Your task to perform on an android device: Go to ESPN.com Image 0: 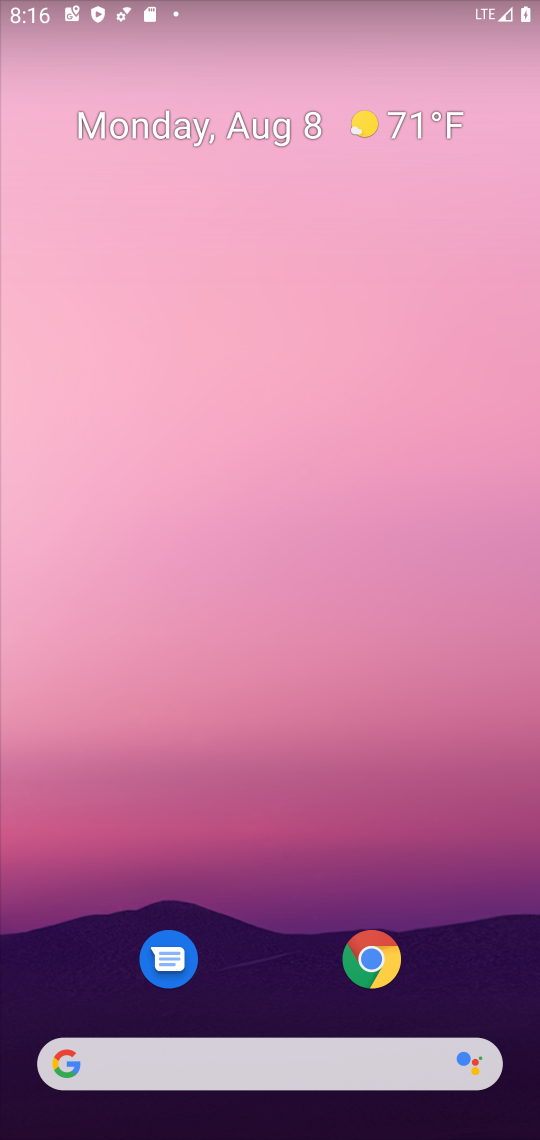
Step 0: drag from (477, 956) to (225, 70)
Your task to perform on an android device: Go to ESPN.com Image 1: 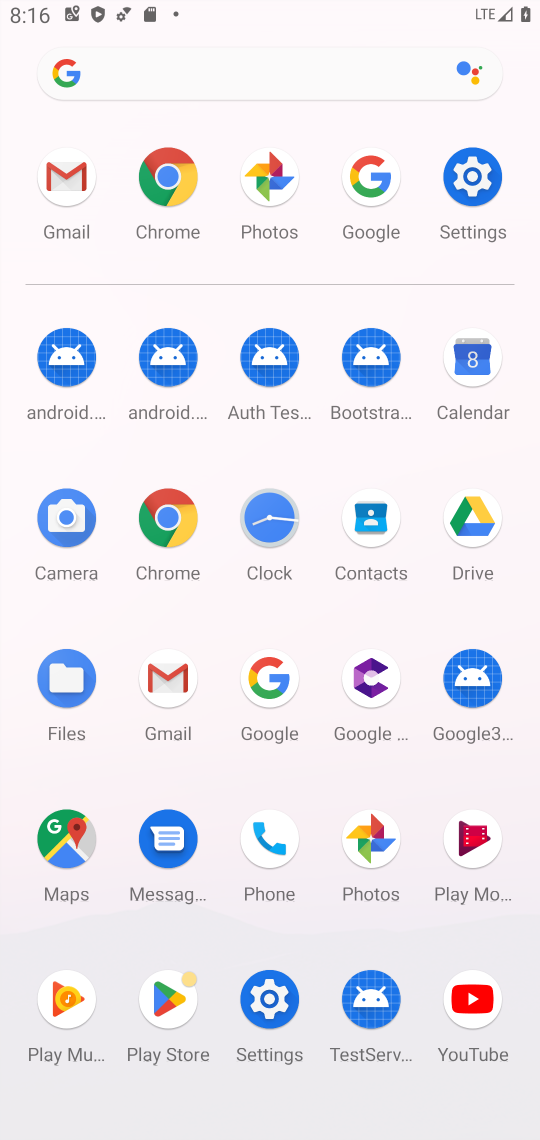
Step 1: click (273, 693)
Your task to perform on an android device: Go to ESPN.com Image 2: 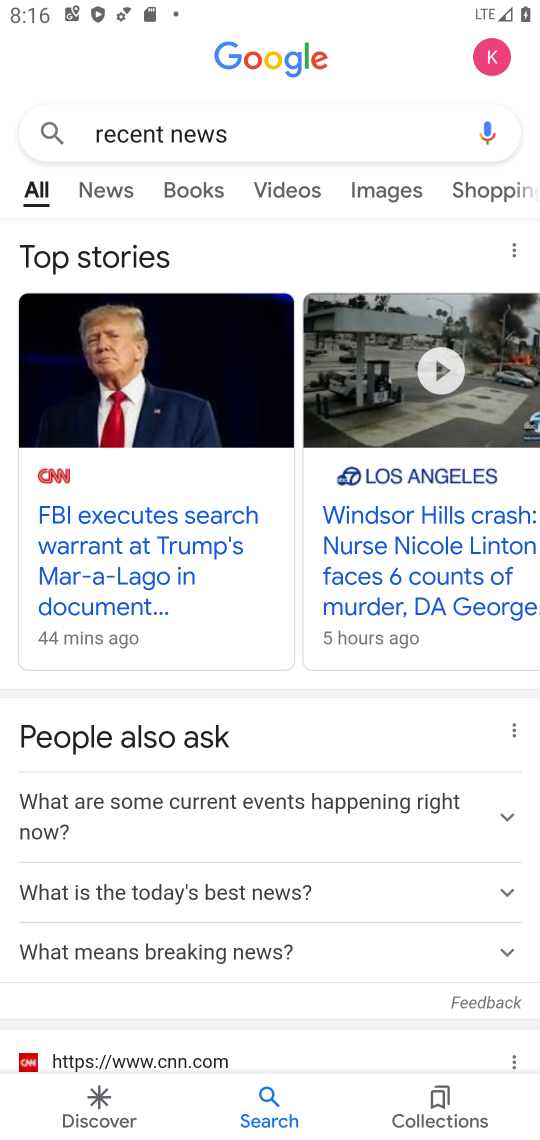
Step 2: press back button
Your task to perform on an android device: Go to ESPN.com Image 3: 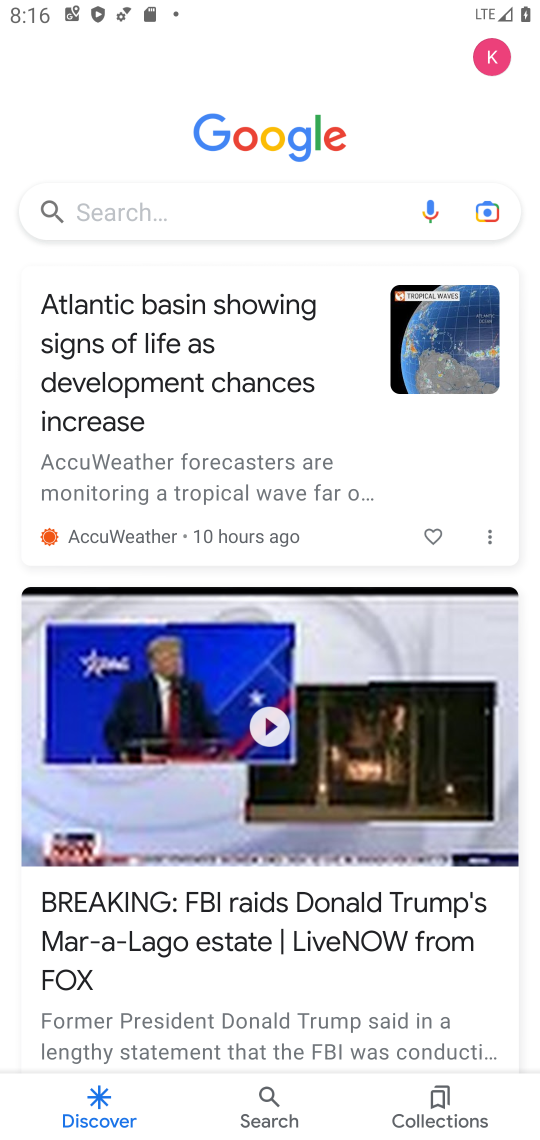
Step 3: click (138, 215)
Your task to perform on an android device: Go to ESPN.com Image 4: 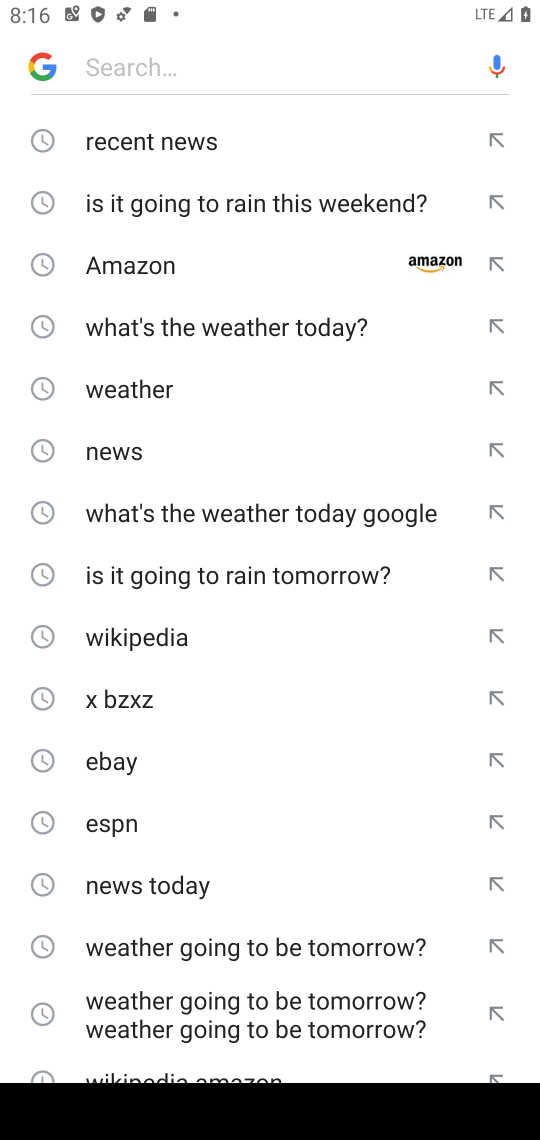
Step 4: type "ESPN.com"
Your task to perform on an android device: Go to ESPN.com Image 5: 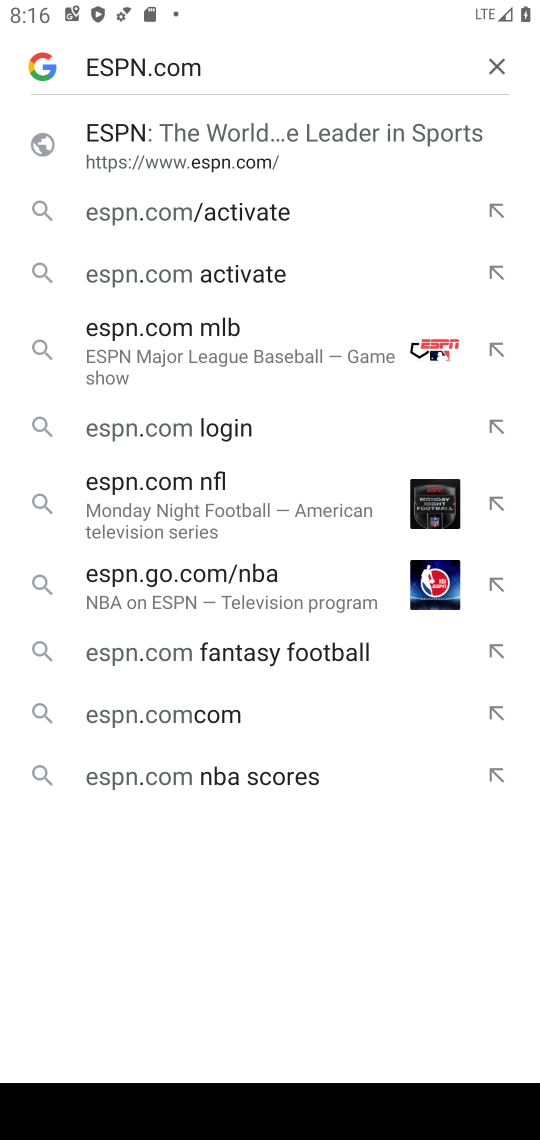
Step 5: click (104, 155)
Your task to perform on an android device: Go to ESPN.com Image 6: 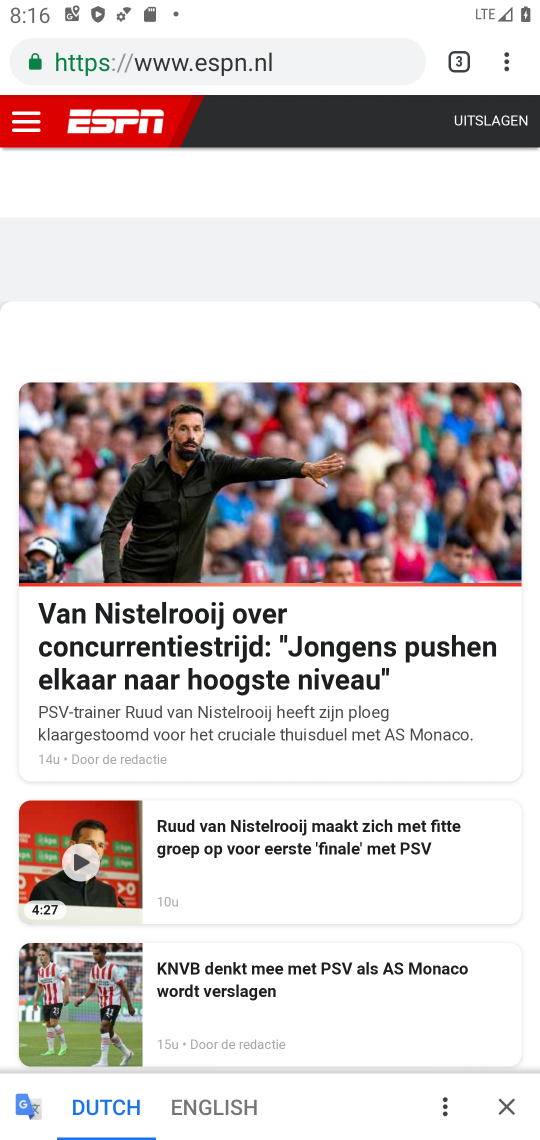
Step 6: task complete